Your task to perform on an android device: add a contact in the contacts app Image 0: 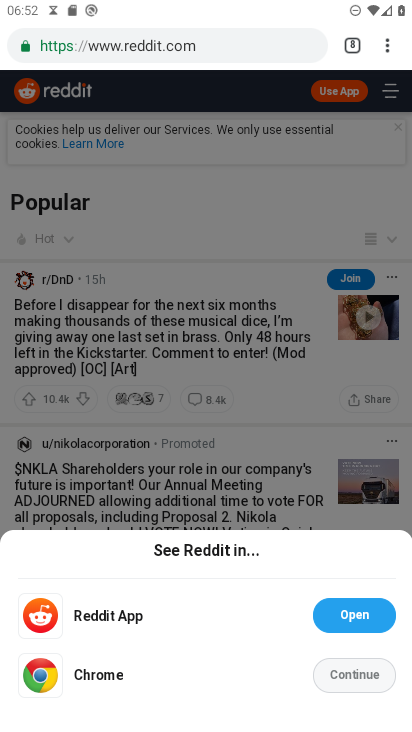
Step 0: press home button
Your task to perform on an android device: add a contact in the contacts app Image 1: 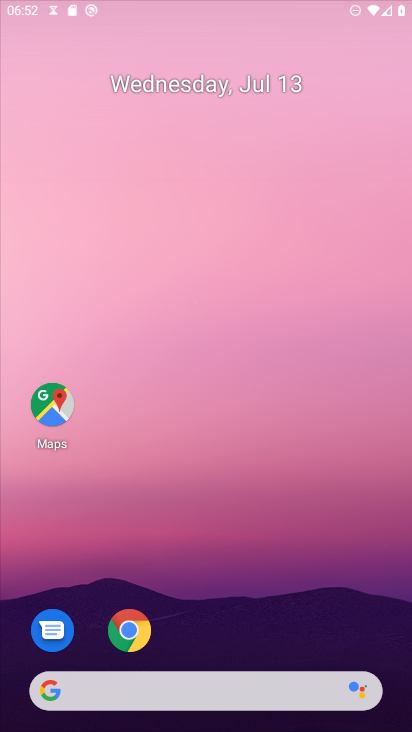
Step 1: drag from (206, 677) to (234, 30)
Your task to perform on an android device: add a contact in the contacts app Image 2: 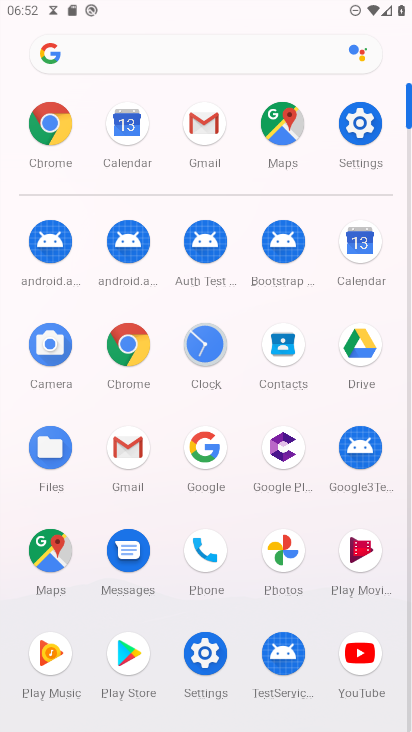
Step 2: click (209, 344)
Your task to perform on an android device: add a contact in the contacts app Image 3: 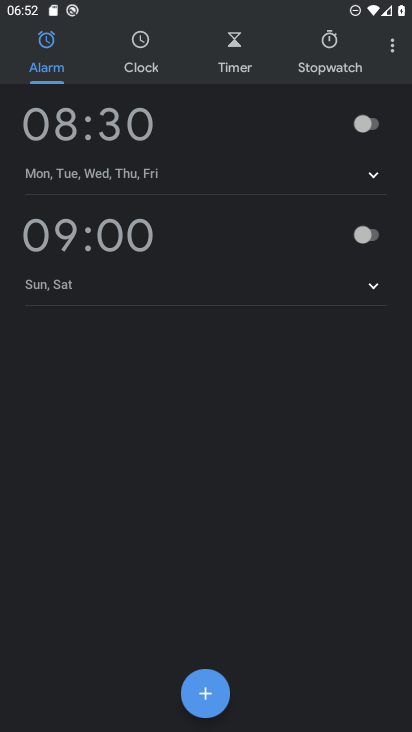
Step 3: press home button
Your task to perform on an android device: add a contact in the contacts app Image 4: 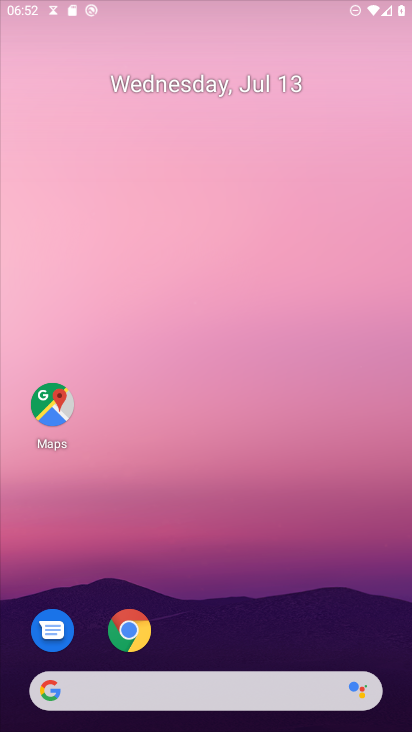
Step 4: drag from (243, 669) to (312, 113)
Your task to perform on an android device: add a contact in the contacts app Image 5: 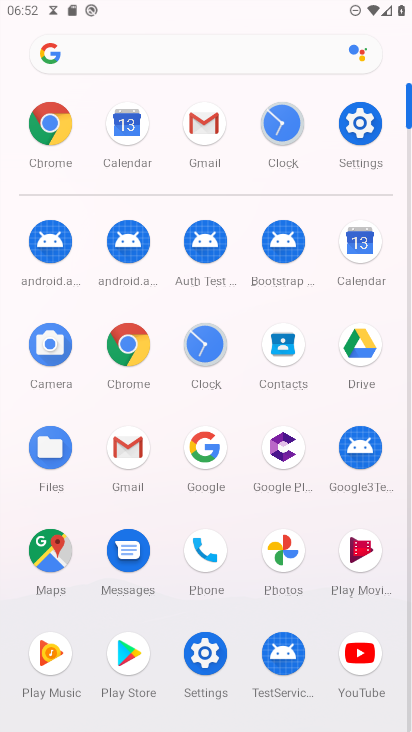
Step 5: click (272, 344)
Your task to perform on an android device: add a contact in the contacts app Image 6: 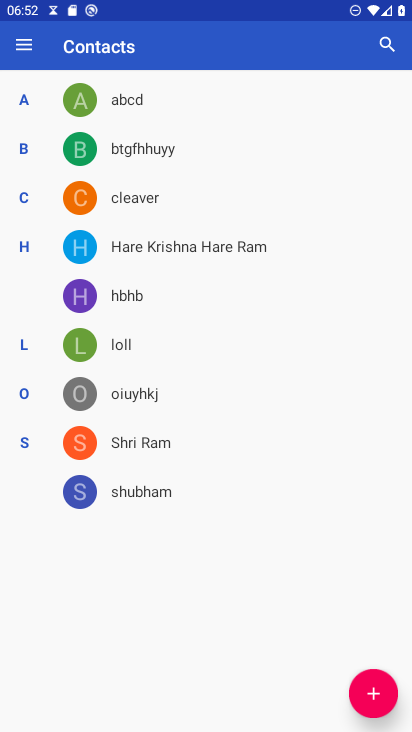
Step 6: click (379, 704)
Your task to perform on an android device: add a contact in the contacts app Image 7: 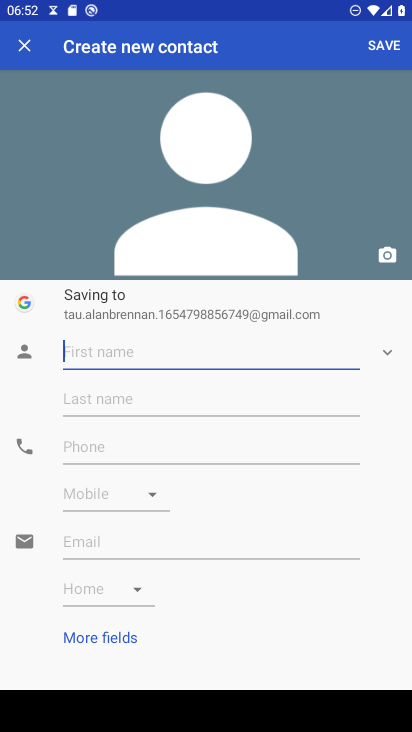
Step 7: type "jahan"
Your task to perform on an android device: add a contact in the contacts app Image 8: 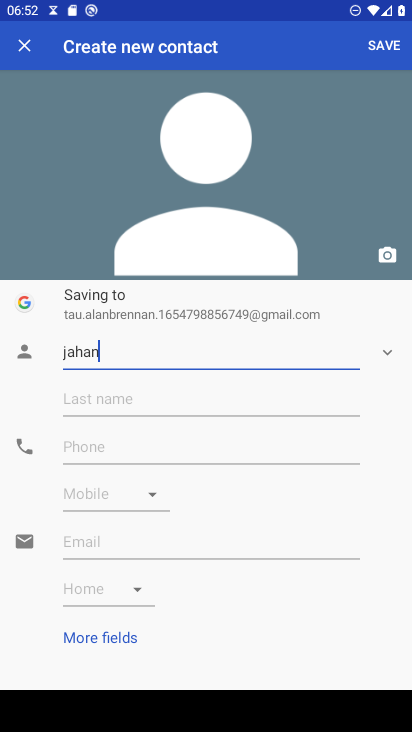
Step 8: click (145, 444)
Your task to perform on an android device: add a contact in the contacts app Image 9: 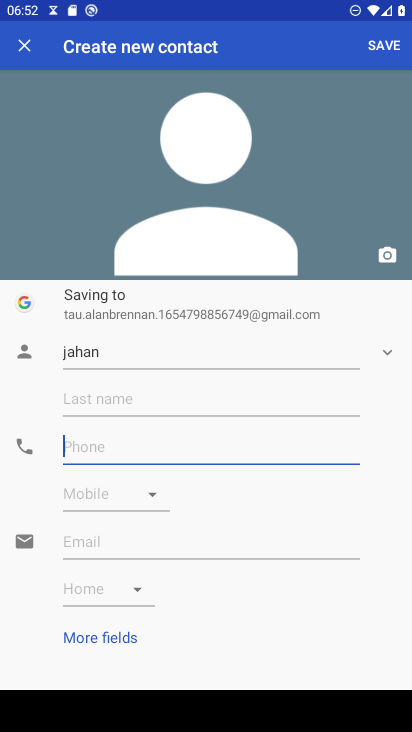
Step 9: type "9876567789"
Your task to perform on an android device: add a contact in the contacts app Image 10: 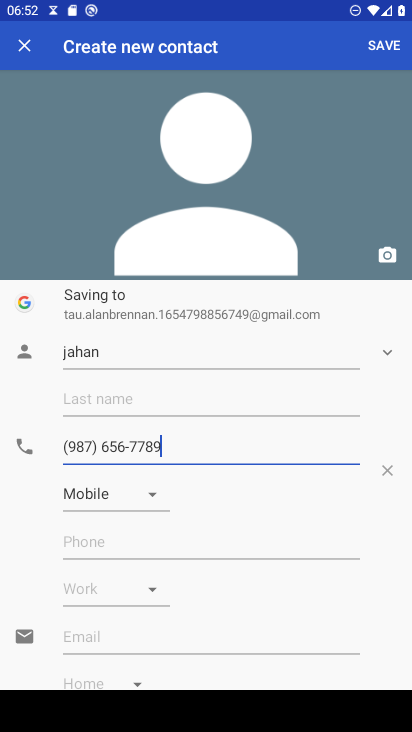
Step 10: click (391, 50)
Your task to perform on an android device: add a contact in the contacts app Image 11: 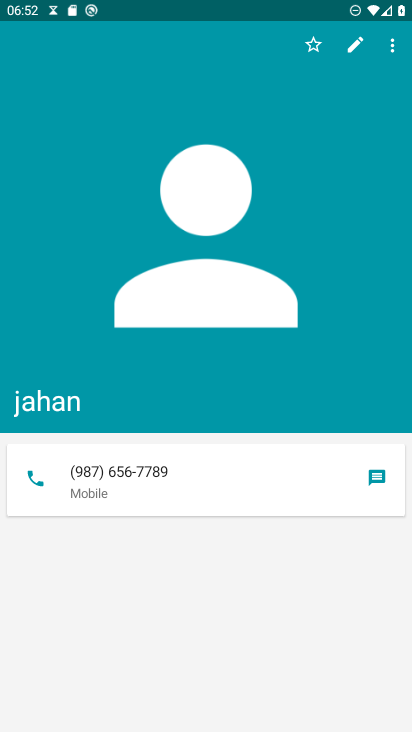
Step 11: task complete